Your task to perform on an android device: Open Youtube and go to the subscriptions tab Image 0: 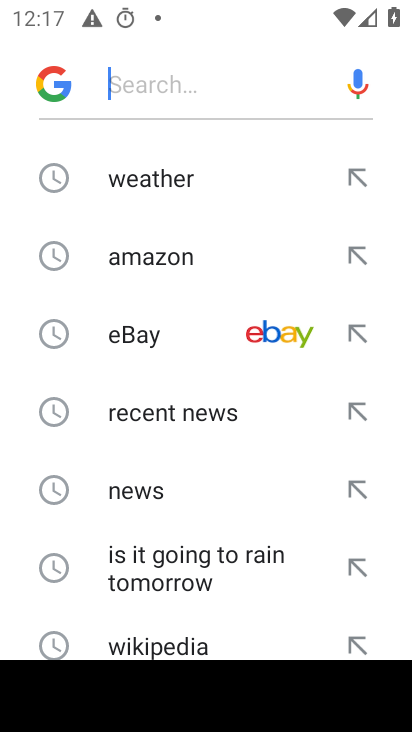
Step 0: press home button
Your task to perform on an android device: Open Youtube and go to the subscriptions tab Image 1: 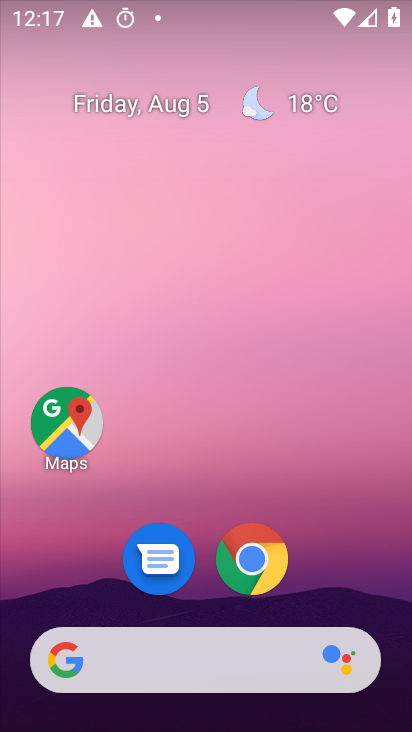
Step 1: drag from (54, 710) to (284, 260)
Your task to perform on an android device: Open Youtube and go to the subscriptions tab Image 2: 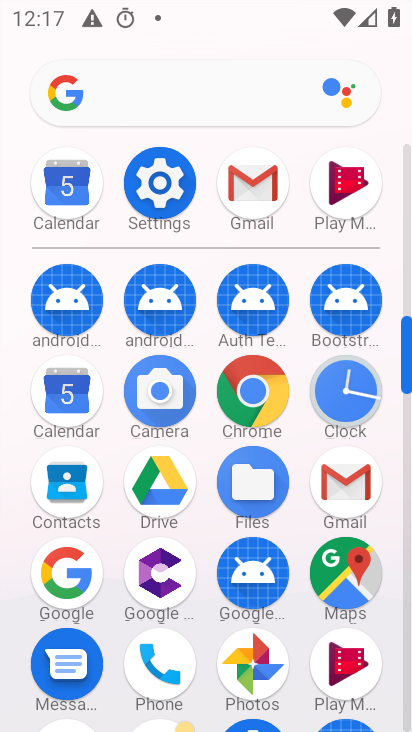
Step 2: click (403, 630)
Your task to perform on an android device: Open Youtube and go to the subscriptions tab Image 3: 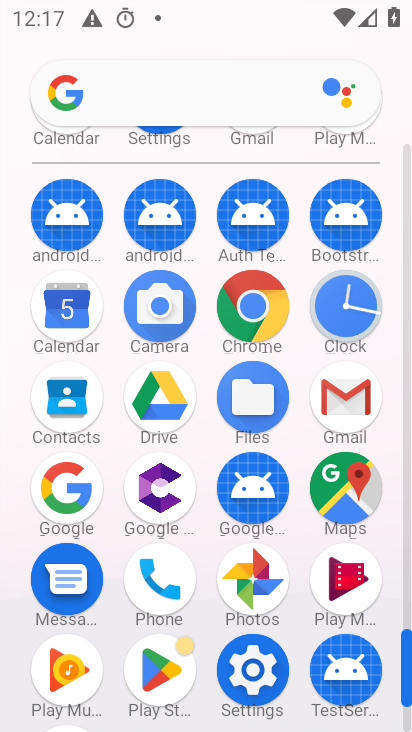
Step 3: click (407, 711)
Your task to perform on an android device: Open Youtube and go to the subscriptions tab Image 4: 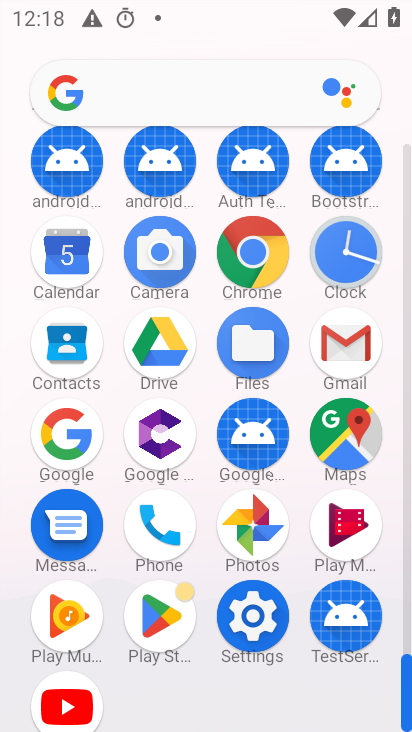
Step 4: click (73, 719)
Your task to perform on an android device: Open Youtube and go to the subscriptions tab Image 5: 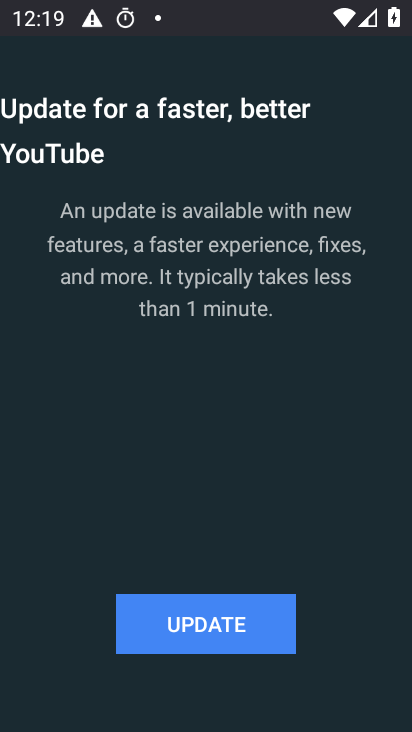
Step 5: task complete